Your task to perform on an android device: Open the stopwatch Image 0: 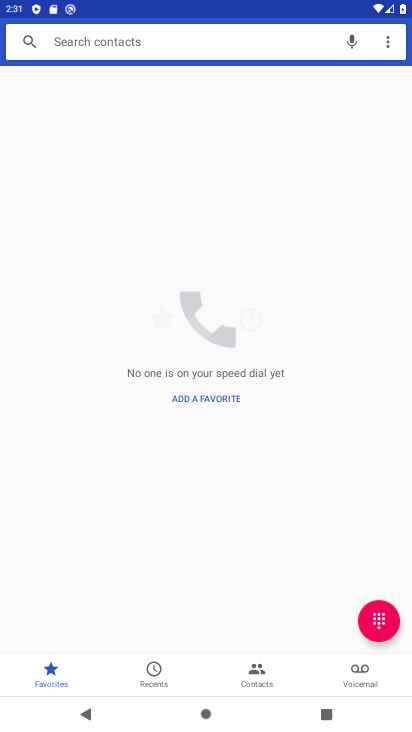
Step 0: press home button
Your task to perform on an android device: Open the stopwatch Image 1: 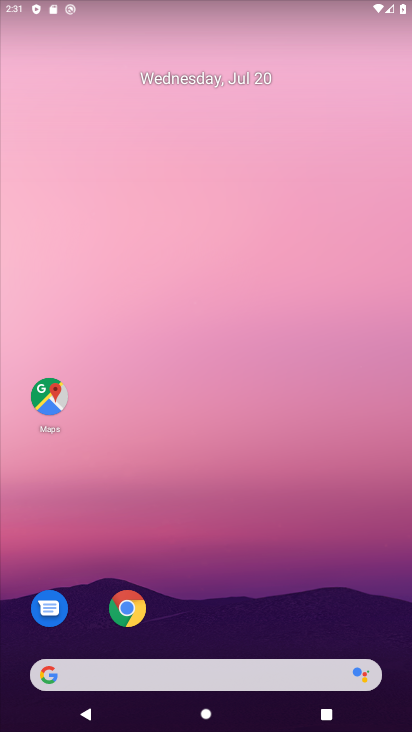
Step 1: drag from (229, 568) to (214, 94)
Your task to perform on an android device: Open the stopwatch Image 2: 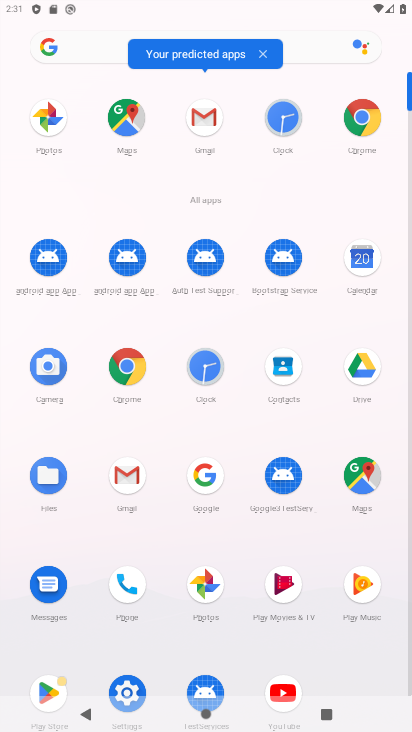
Step 2: click (284, 126)
Your task to perform on an android device: Open the stopwatch Image 3: 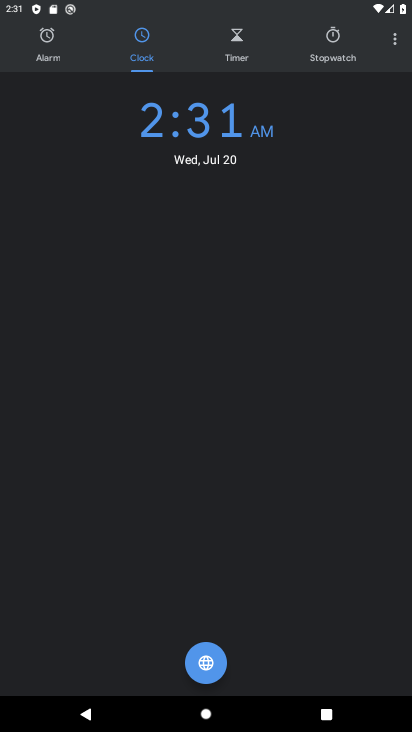
Step 3: click (338, 52)
Your task to perform on an android device: Open the stopwatch Image 4: 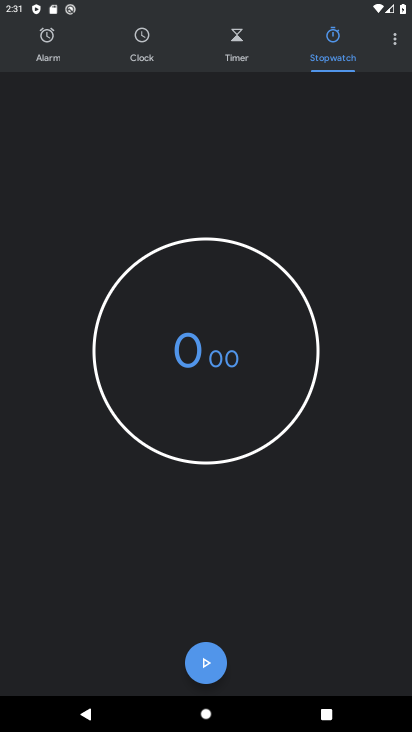
Step 4: click (204, 656)
Your task to perform on an android device: Open the stopwatch Image 5: 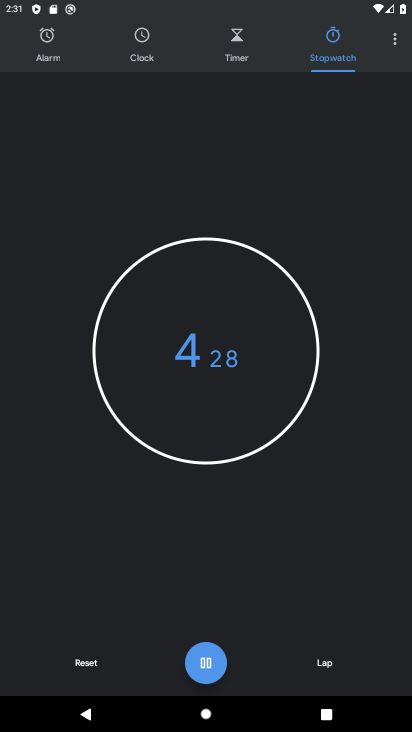
Step 5: task complete